Your task to perform on an android device: set the stopwatch Image 0: 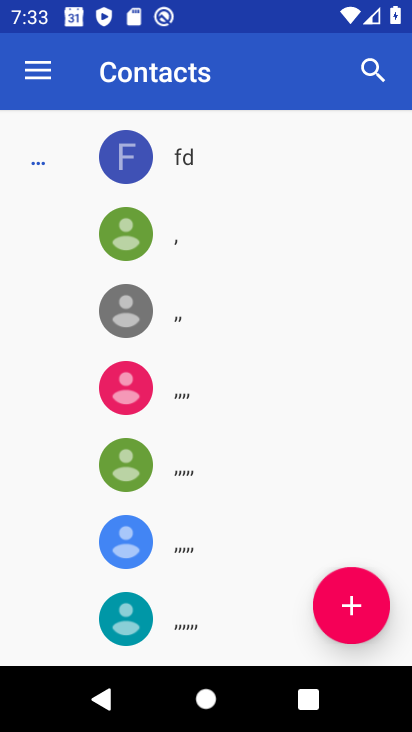
Step 0: press home button
Your task to perform on an android device: set the stopwatch Image 1: 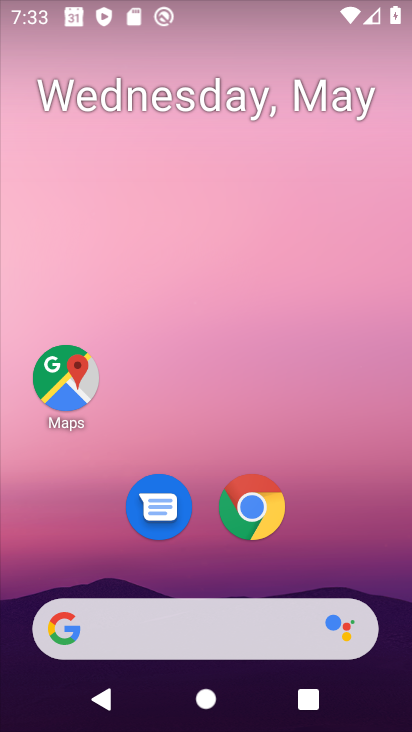
Step 1: drag from (336, 510) to (333, 223)
Your task to perform on an android device: set the stopwatch Image 2: 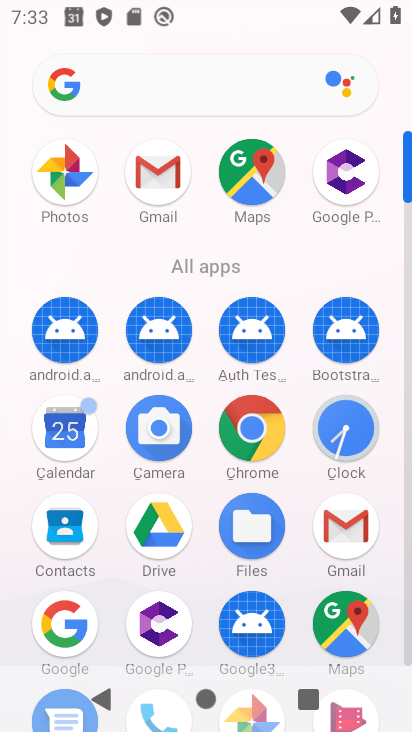
Step 2: click (347, 429)
Your task to perform on an android device: set the stopwatch Image 3: 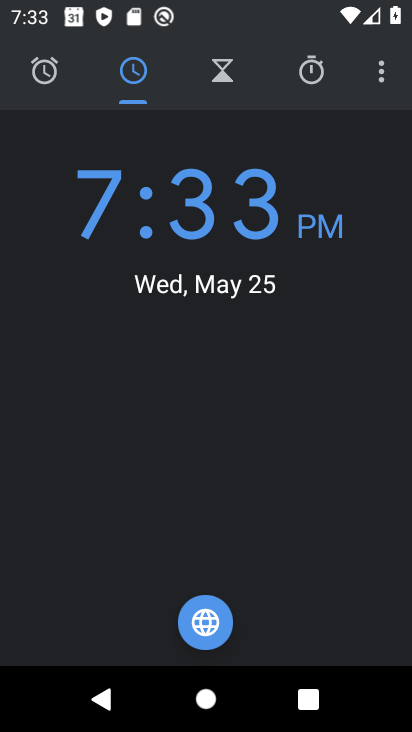
Step 3: click (317, 50)
Your task to perform on an android device: set the stopwatch Image 4: 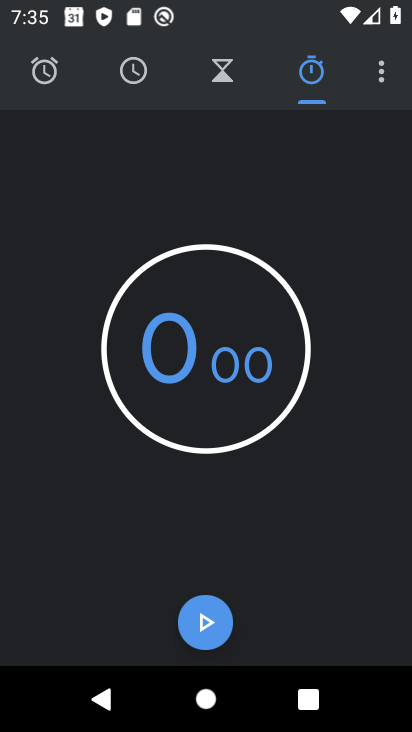
Step 4: task complete